Your task to perform on an android device: Go to calendar. Show me events next week Image 0: 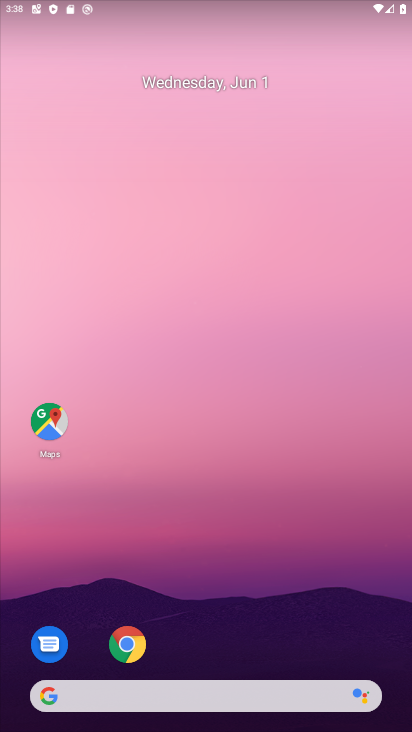
Step 0: drag from (274, 594) to (190, 126)
Your task to perform on an android device: Go to calendar. Show me events next week Image 1: 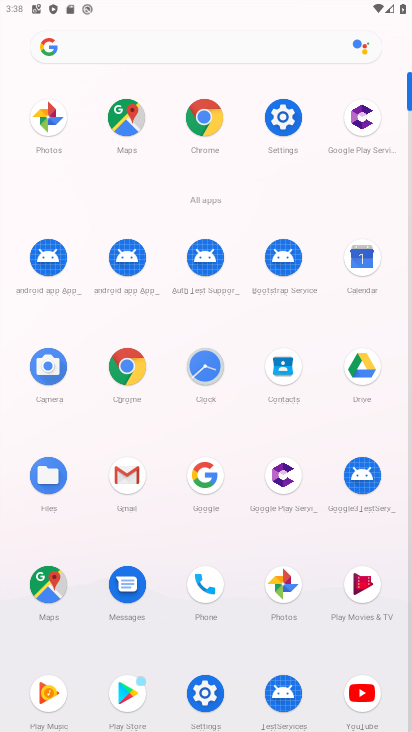
Step 1: click (355, 265)
Your task to perform on an android device: Go to calendar. Show me events next week Image 2: 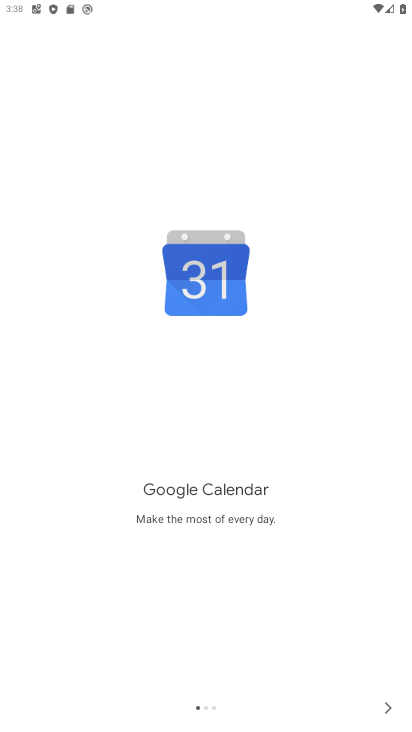
Step 2: click (385, 708)
Your task to perform on an android device: Go to calendar. Show me events next week Image 3: 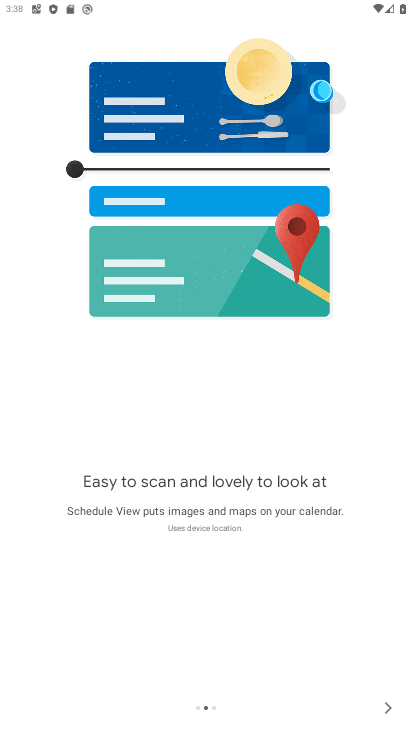
Step 3: click (386, 708)
Your task to perform on an android device: Go to calendar. Show me events next week Image 4: 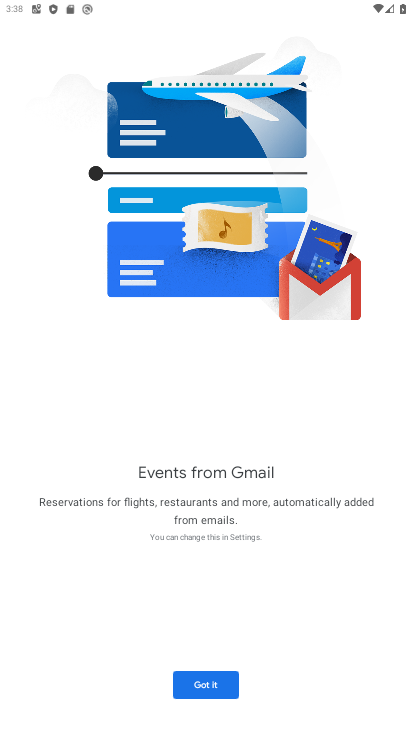
Step 4: click (189, 676)
Your task to perform on an android device: Go to calendar. Show me events next week Image 5: 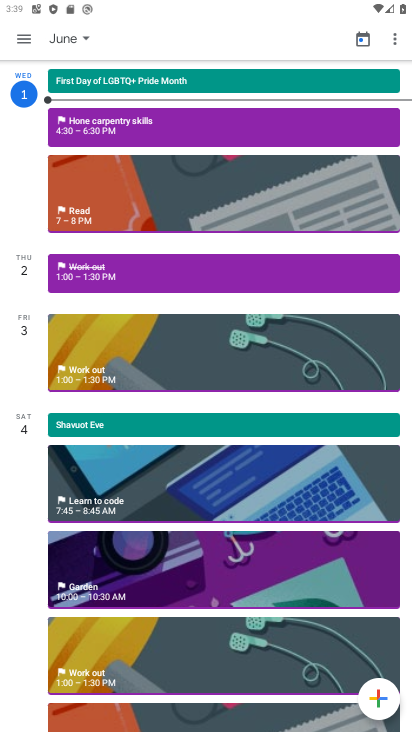
Step 5: click (20, 40)
Your task to perform on an android device: Go to calendar. Show me events next week Image 6: 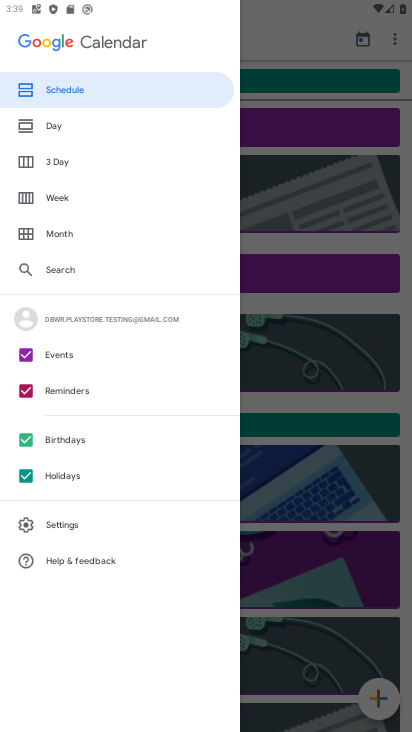
Step 6: click (57, 200)
Your task to perform on an android device: Go to calendar. Show me events next week Image 7: 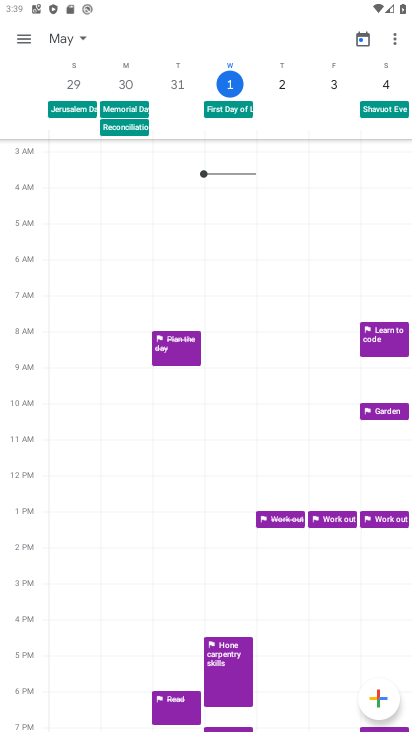
Step 7: task complete